Your task to perform on an android device: Clear the shopping cart on ebay.com. Search for "duracell triple a" on ebay.com, select the first entry, add it to the cart, then select checkout. Image 0: 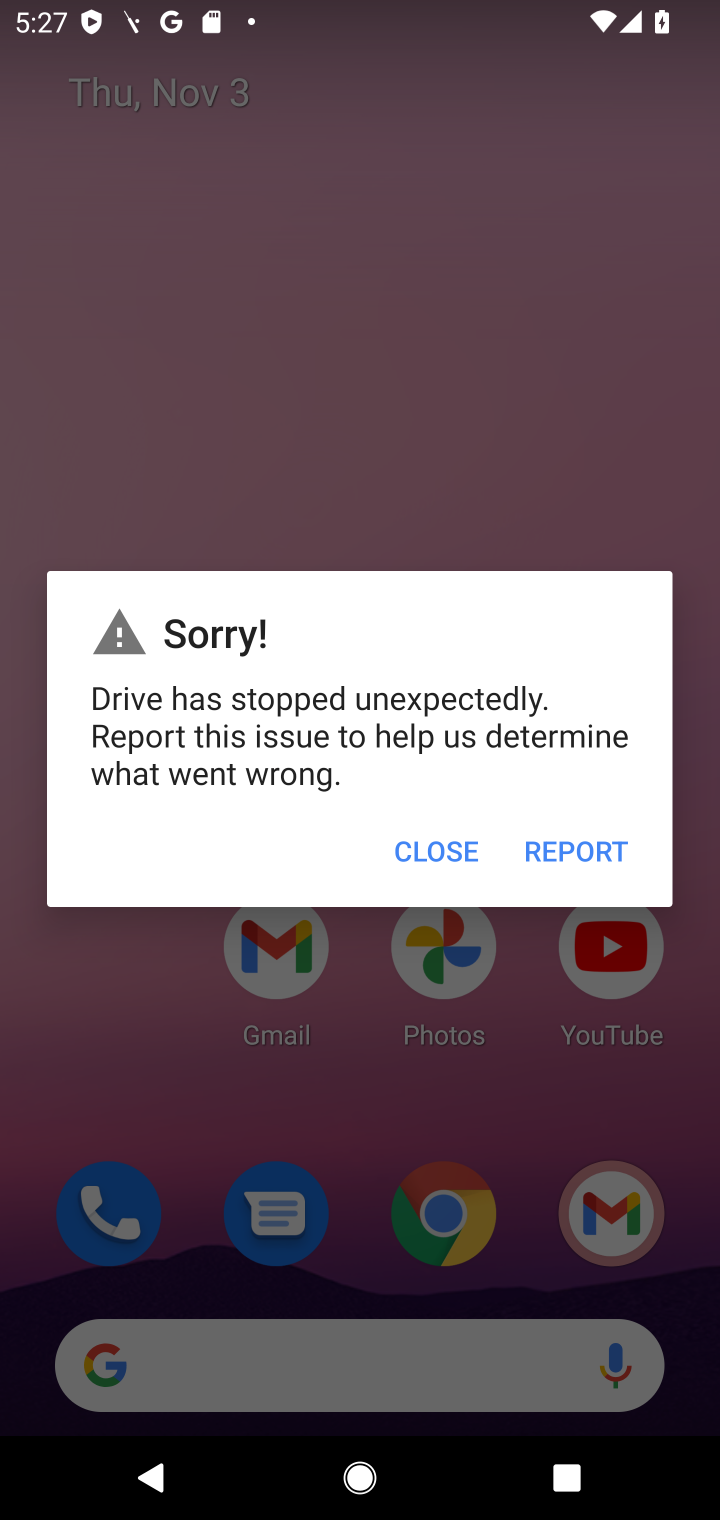
Step 0: press home button
Your task to perform on an android device: Clear the shopping cart on ebay.com. Search for "duracell triple a" on ebay.com, select the first entry, add it to the cart, then select checkout. Image 1: 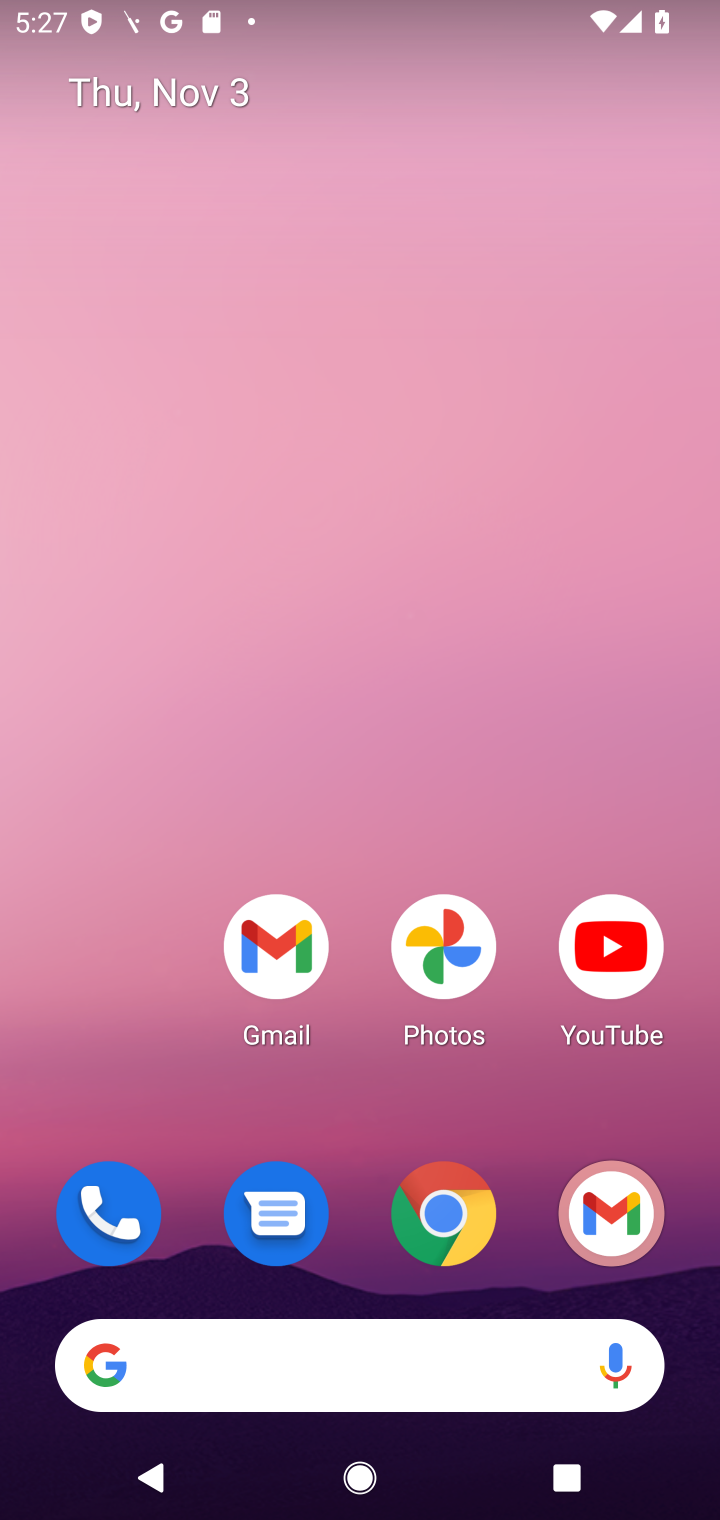
Step 1: click (452, 1214)
Your task to perform on an android device: Clear the shopping cart on ebay.com. Search for "duracell triple a" on ebay.com, select the first entry, add it to the cart, then select checkout. Image 2: 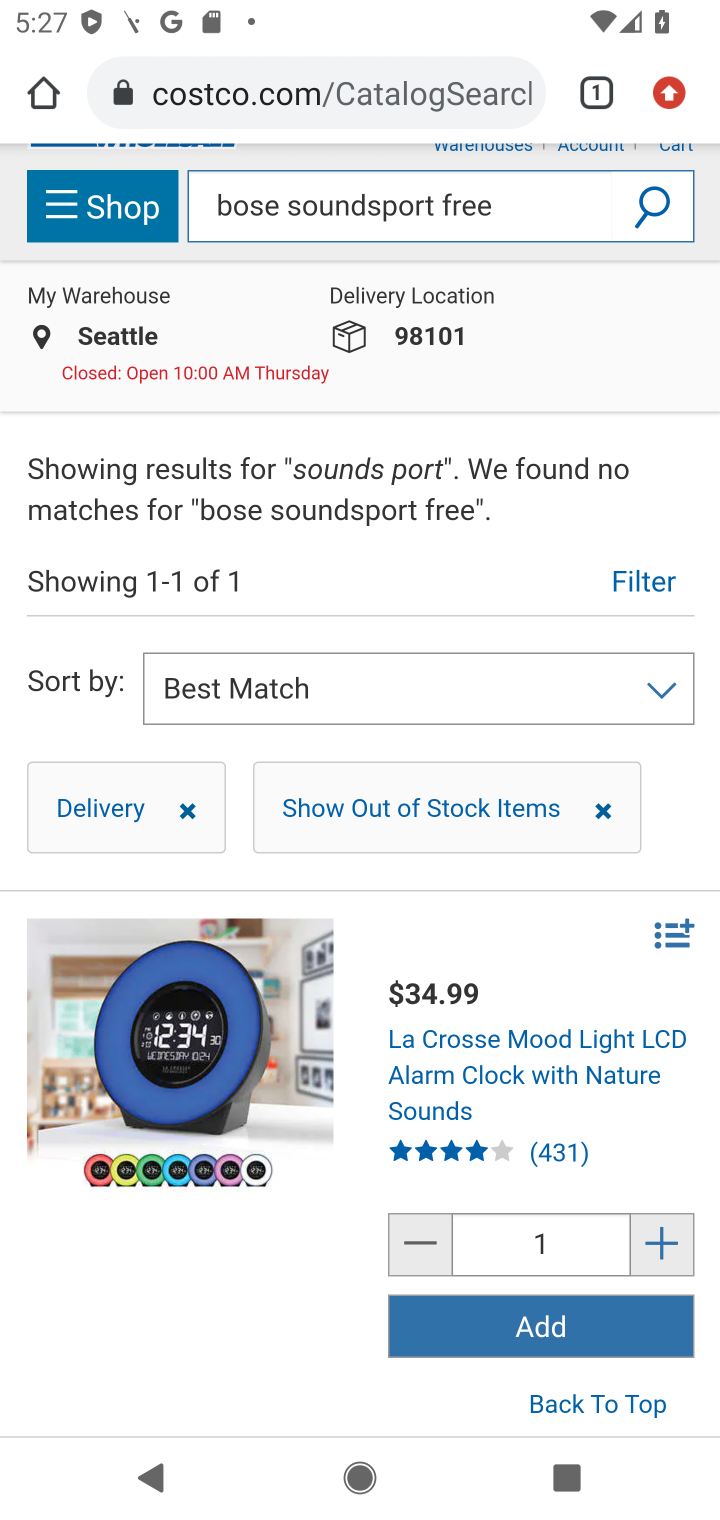
Step 2: click (360, 76)
Your task to perform on an android device: Clear the shopping cart on ebay.com. Search for "duracell triple a" on ebay.com, select the first entry, add it to the cart, then select checkout. Image 3: 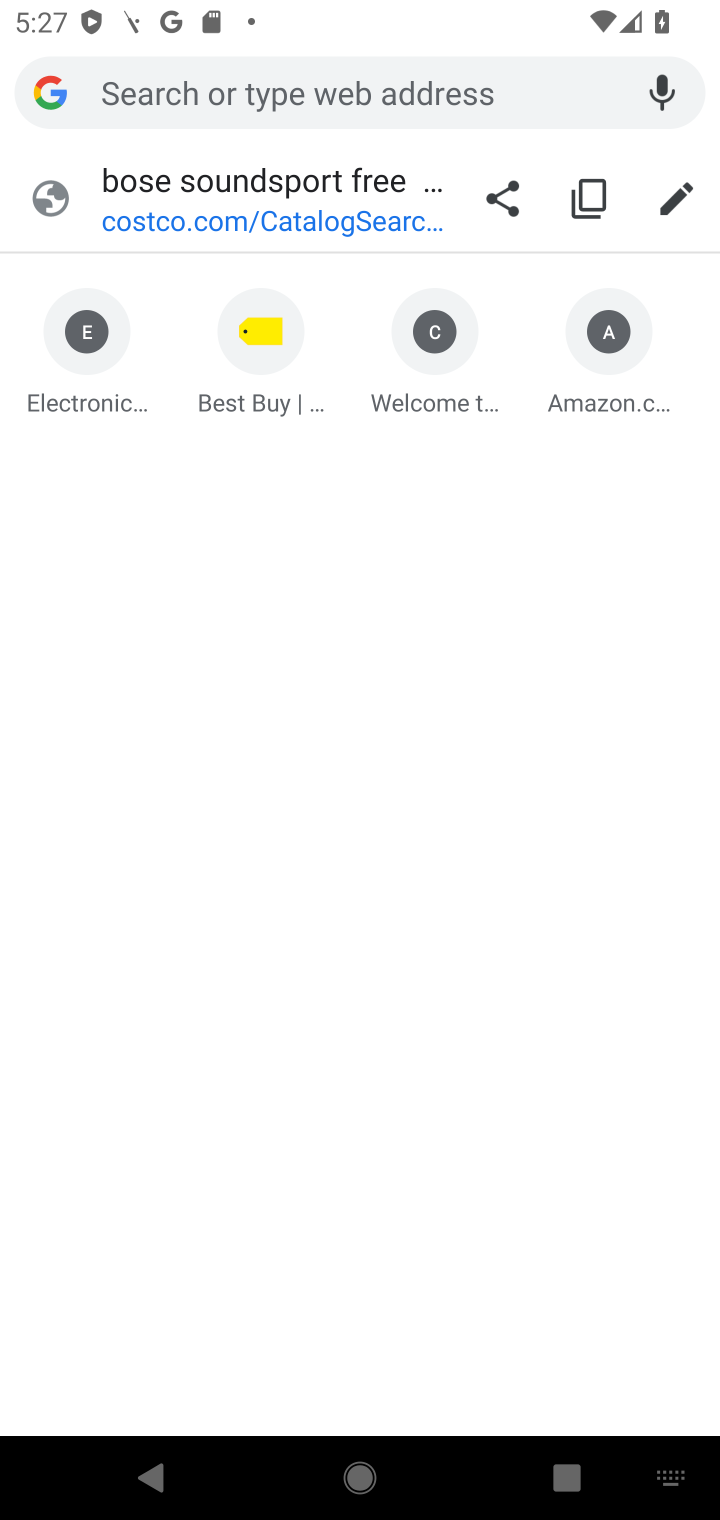
Step 3: type "ebay.com"
Your task to perform on an android device: Clear the shopping cart on ebay.com. Search for "duracell triple a" on ebay.com, select the first entry, add it to the cart, then select checkout. Image 4: 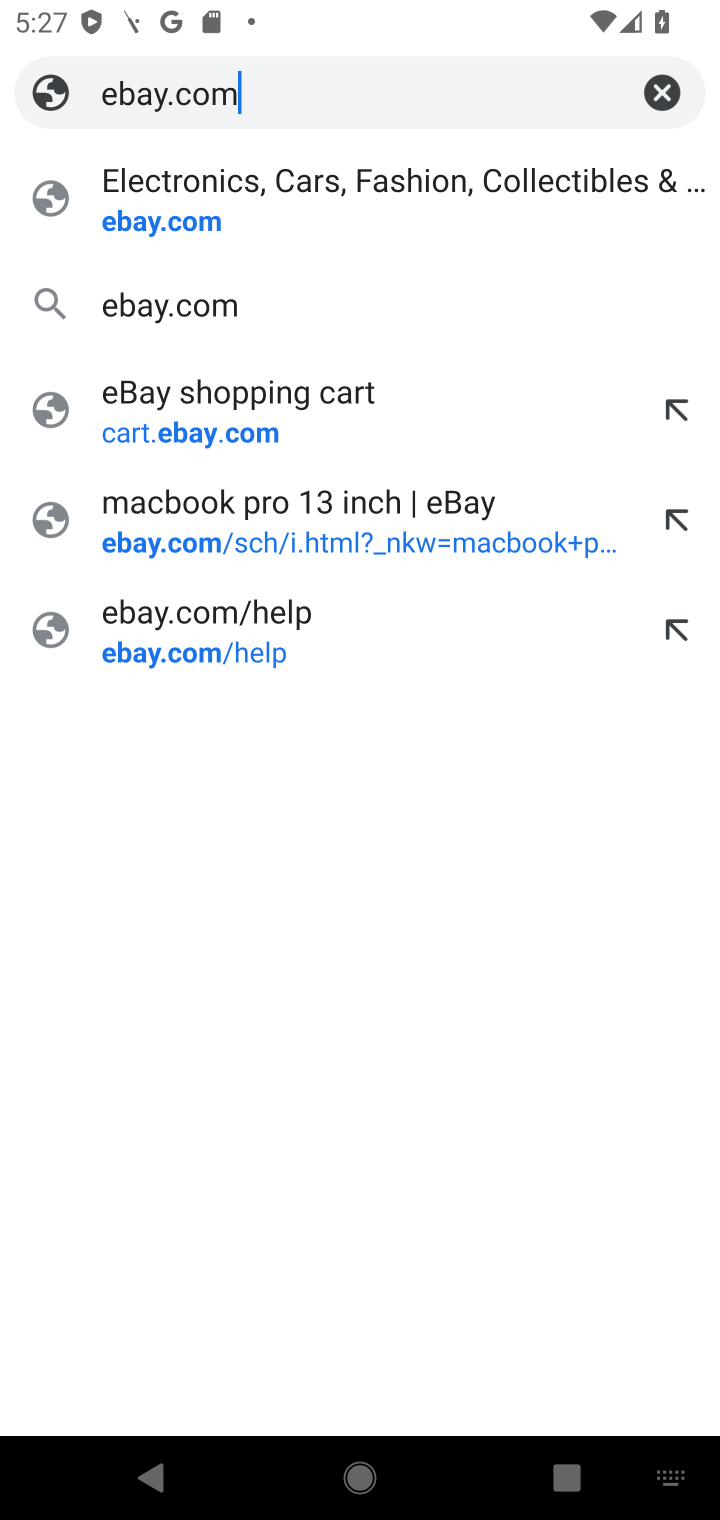
Step 4: click (162, 226)
Your task to perform on an android device: Clear the shopping cart on ebay.com. Search for "duracell triple a" on ebay.com, select the first entry, add it to the cart, then select checkout. Image 5: 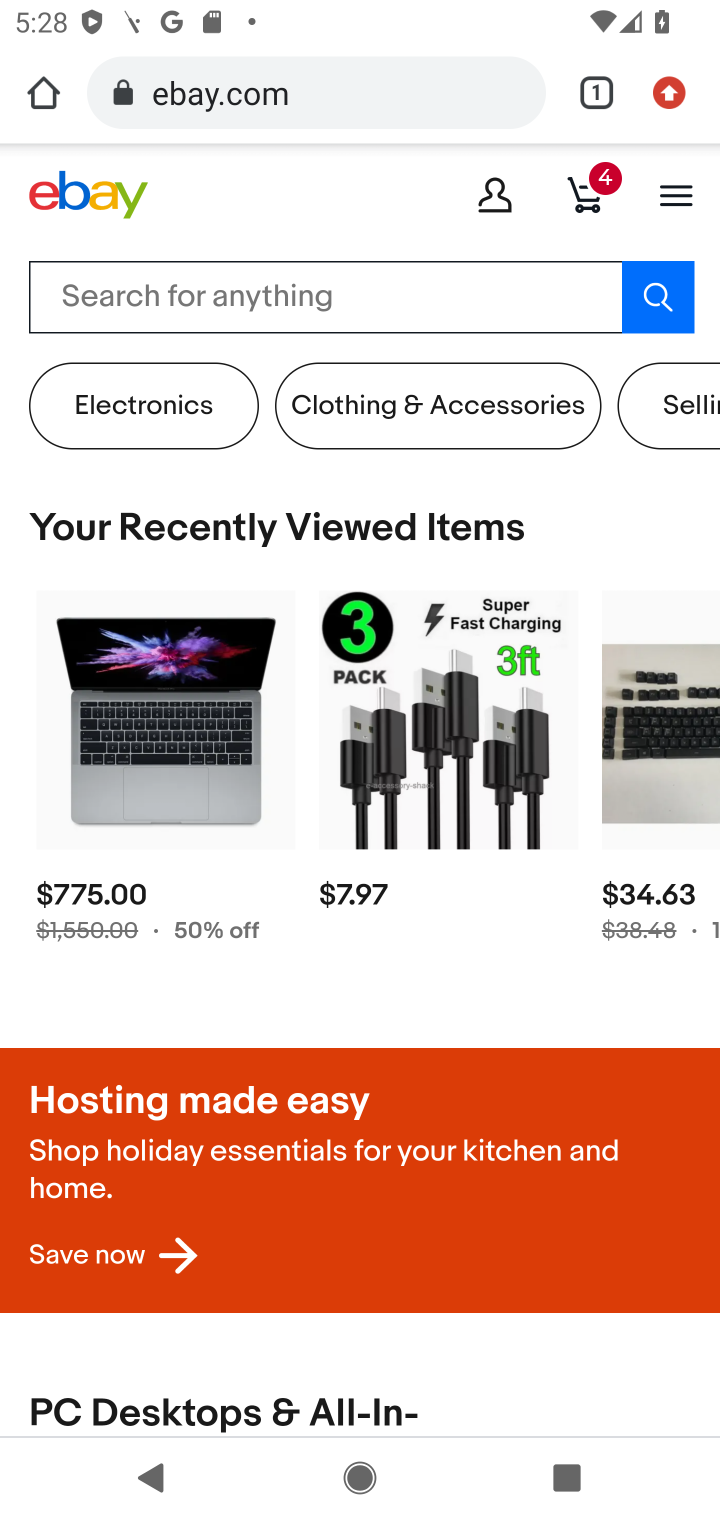
Step 5: click (593, 184)
Your task to perform on an android device: Clear the shopping cart on ebay.com. Search for "duracell triple a" on ebay.com, select the first entry, add it to the cart, then select checkout. Image 6: 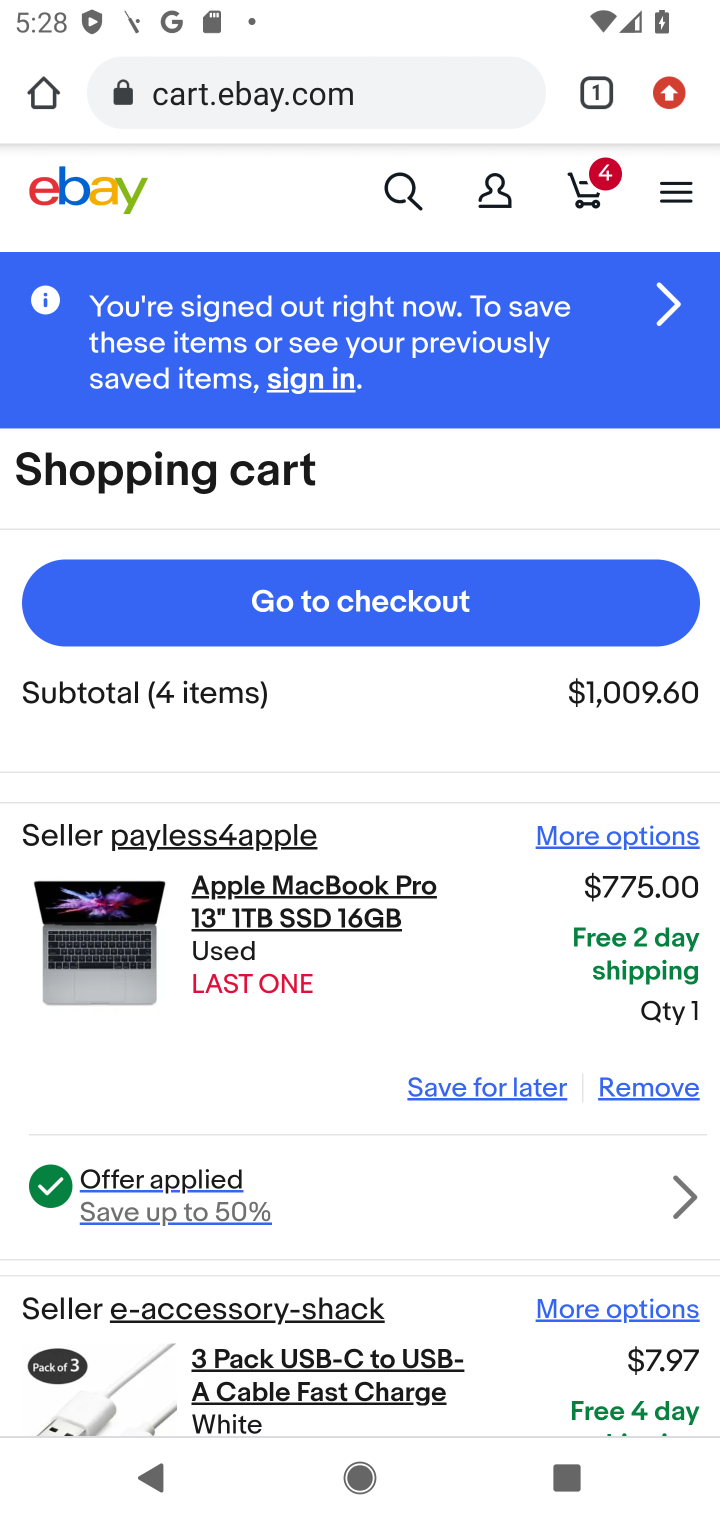
Step 6: click (630, 1092)
Your task to perform on an android device: Clear the shopping cart on ebay.com. Search for "duracell triple a" on ebay.com, select the first entry, add it to the cart, then select checkout. Image 7: 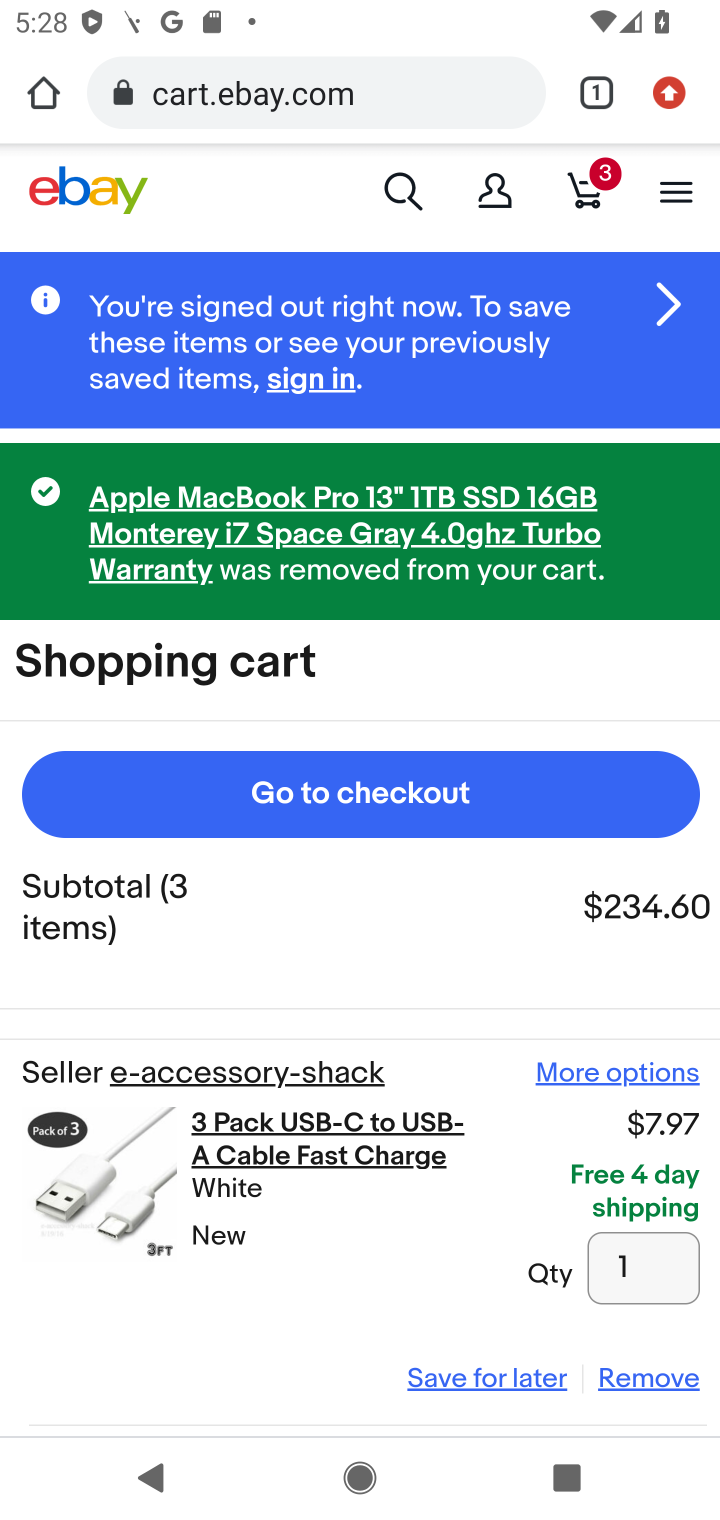
Step 7: click (632, 1373)
Your task to perform on an android device: Clear the shopping cart on ebay.com. Search for "duracell triple a" on ebay.com, select the first entry, add it to the cart, then select checkout. Image 8: 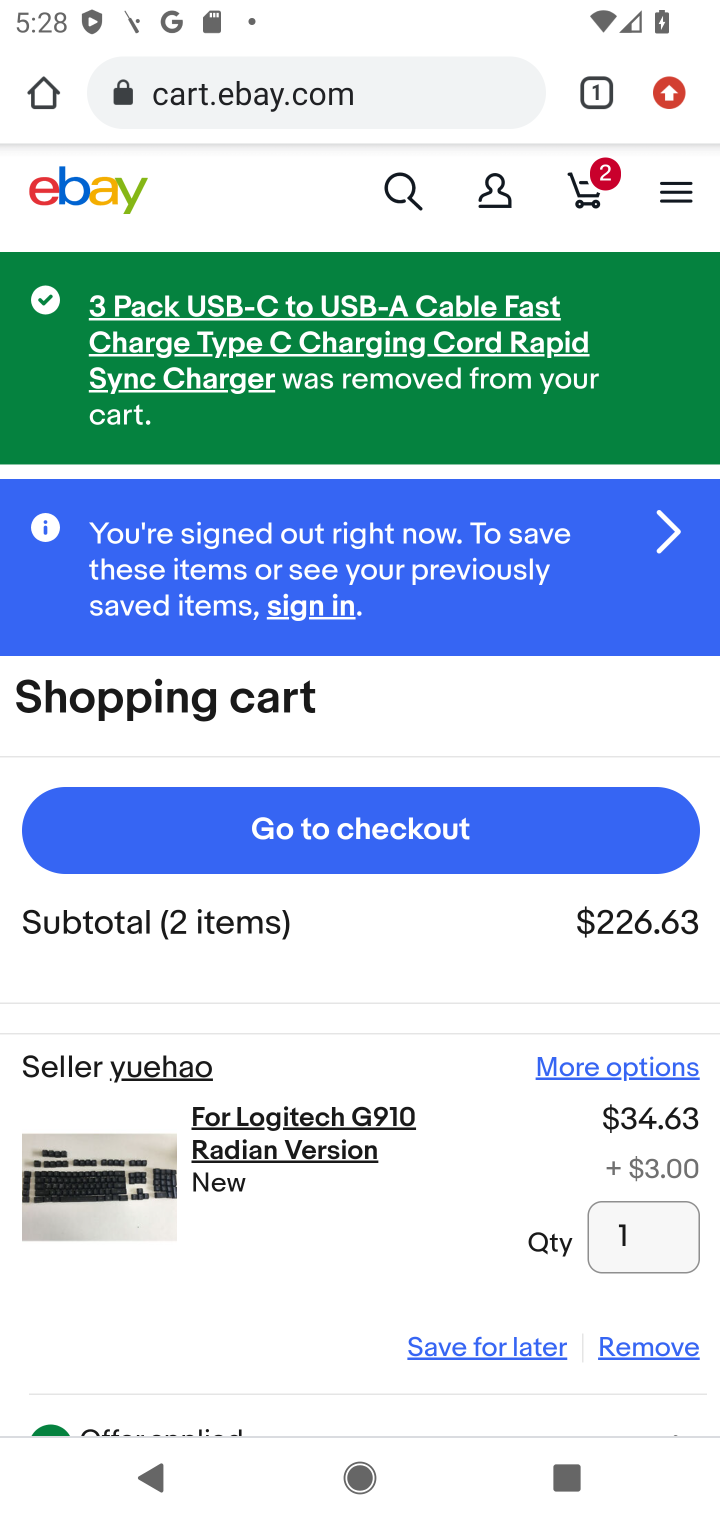
Step 8: click (639, 1355)
Your task to perform on an android device: Clear the shopping cart on ebay.com. Search for "duracell triple a" on ebay.com, select the first entry, add it to the cart, then select checkout. Image 9: 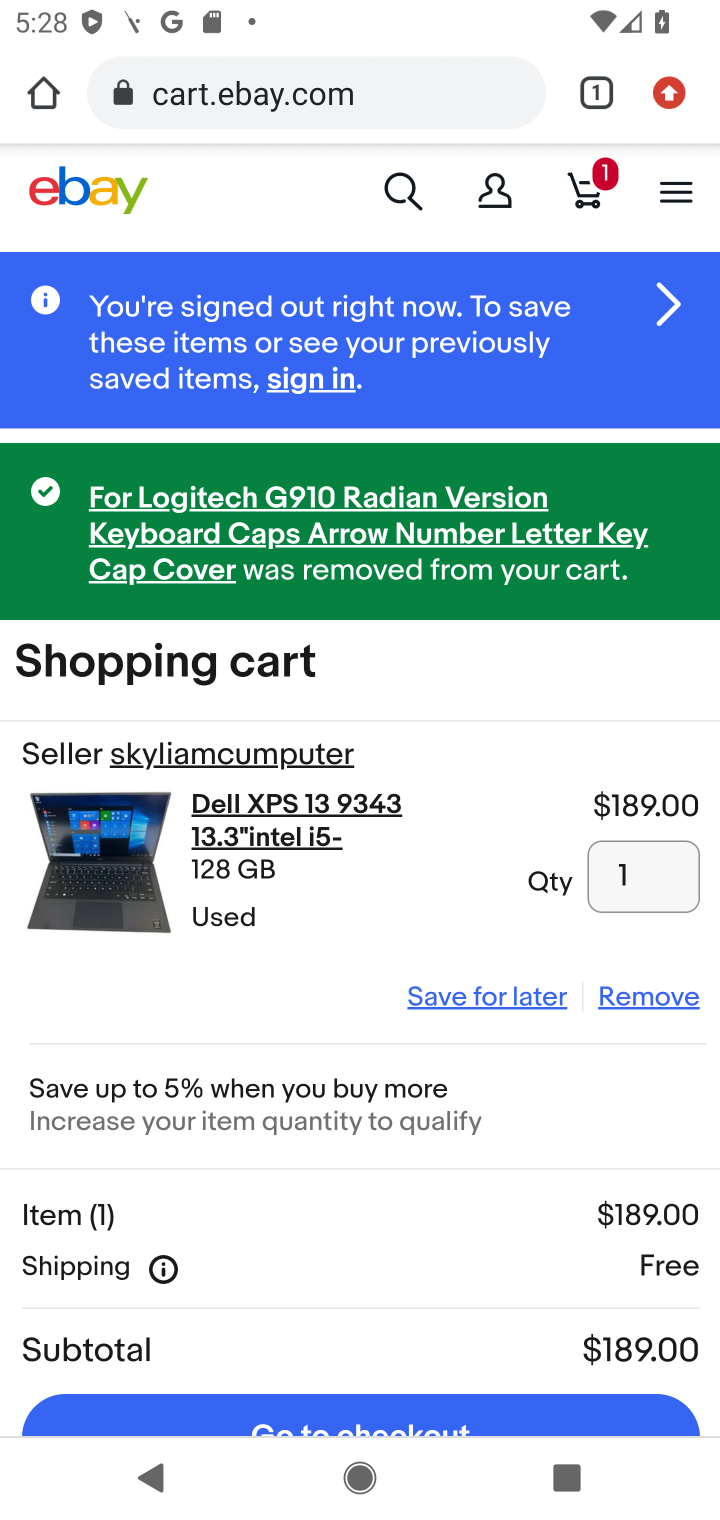
Step 9: click (613, 999)
Your task to perform on an android device: Clear the shopping cart on ebay.com. Search for "duracell triple a" on ebay.com, select the first entry, add it to the cart, then select checkout. Image 10: 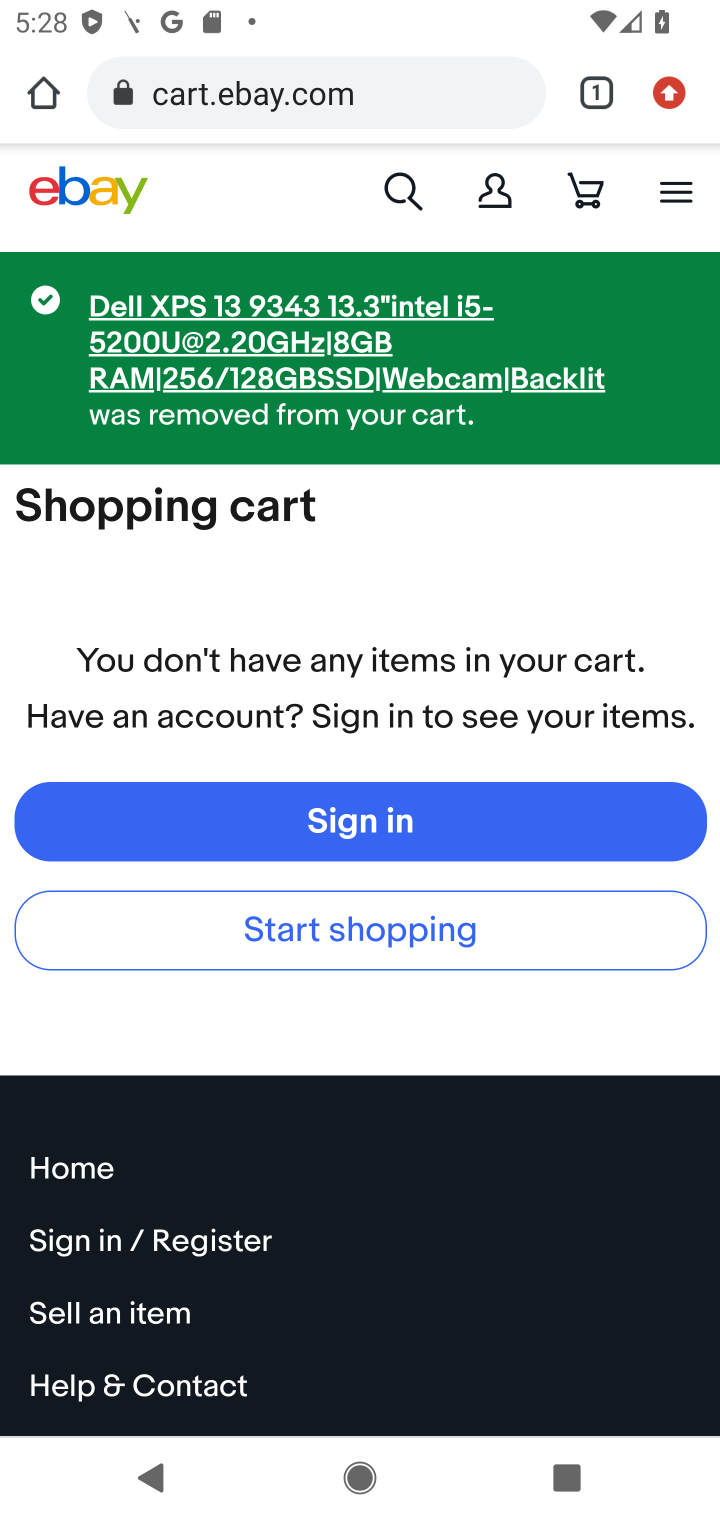
Step 10: click (402, 198)
Your task to perform on an android device: Clear the shopping cart on ebay.com. Search for "duracell triple a" on ebay.com, select the first entry, add it to the cart, then select checkout. Image 11: 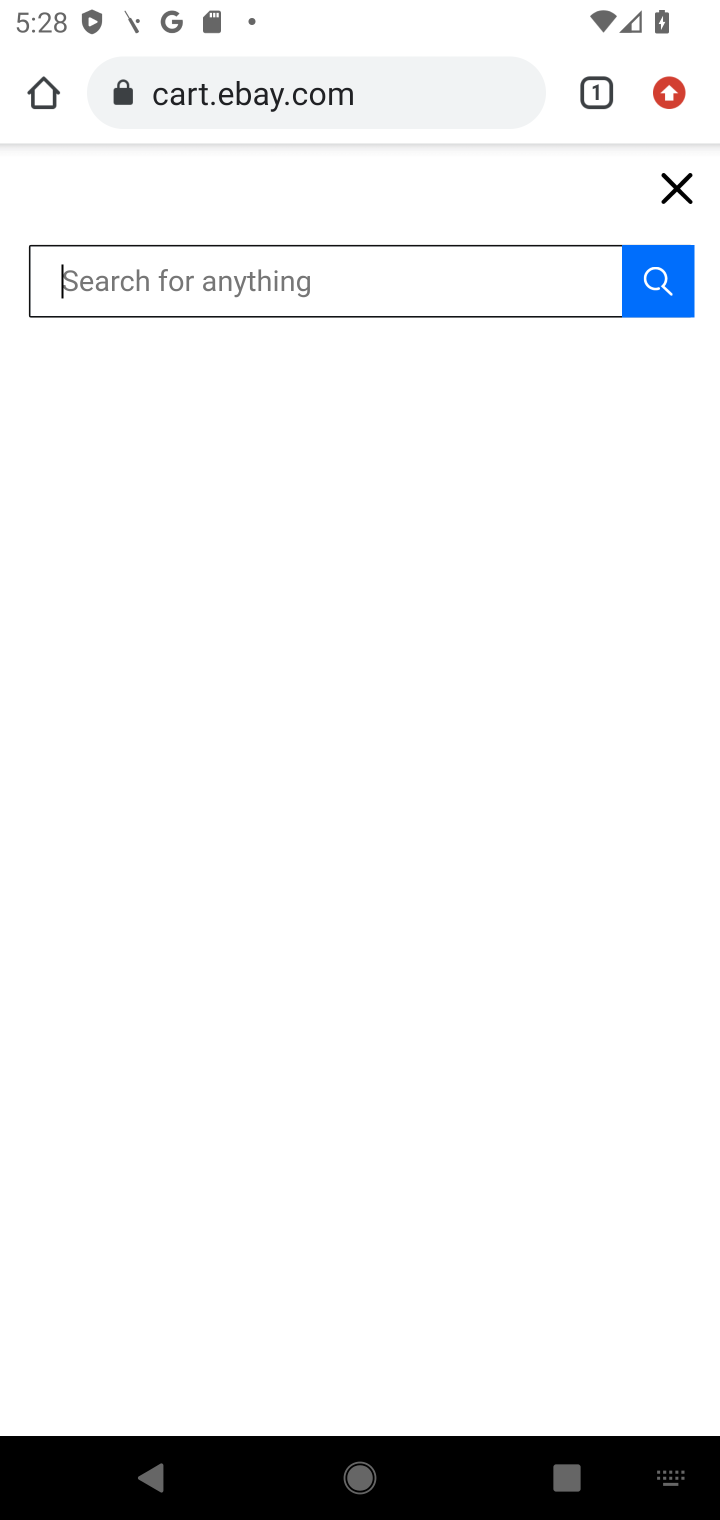
Step 11: type "duracell triple a"
Your task to perform on an android device: Clear the shopping cart on ebay.com. Search for "duracell triple a" on ebay.com, select the first entry, add it to the cart, then select checkout. Image 12: 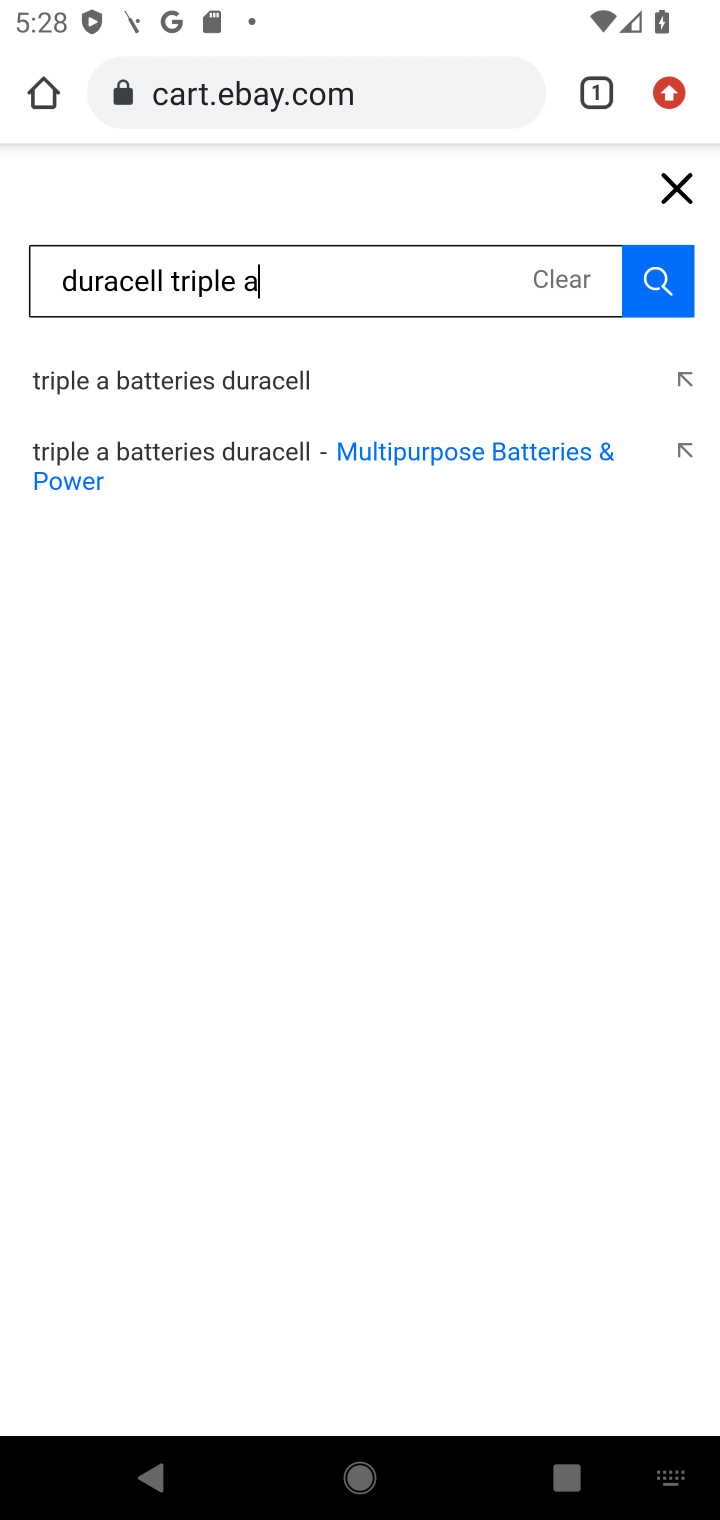
Step 12: click (652, 290)
Your task to perform on an android device: Clear the shopping cart on ebay.com. Search for "duracell triple a" on ebay.com, select the first entry, add it to the cart, then select checkout. Image 13: 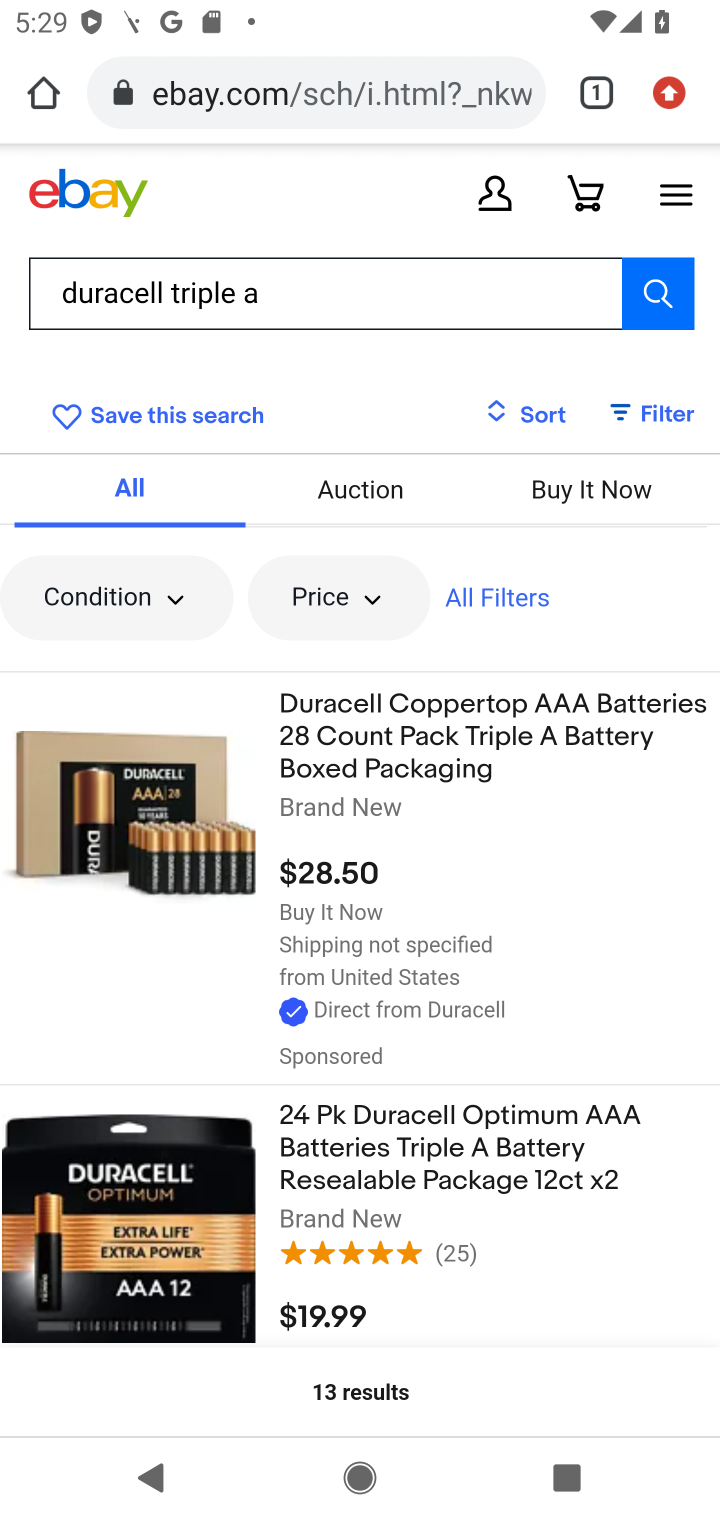
Step 13: click (193, 824)
Your task to perform on an android device: Clear the shopping cart on ebay.com. Search for "duracell triple a" on ebay.com, select the first entry, add it to the cart, then select checkout. Image 14: 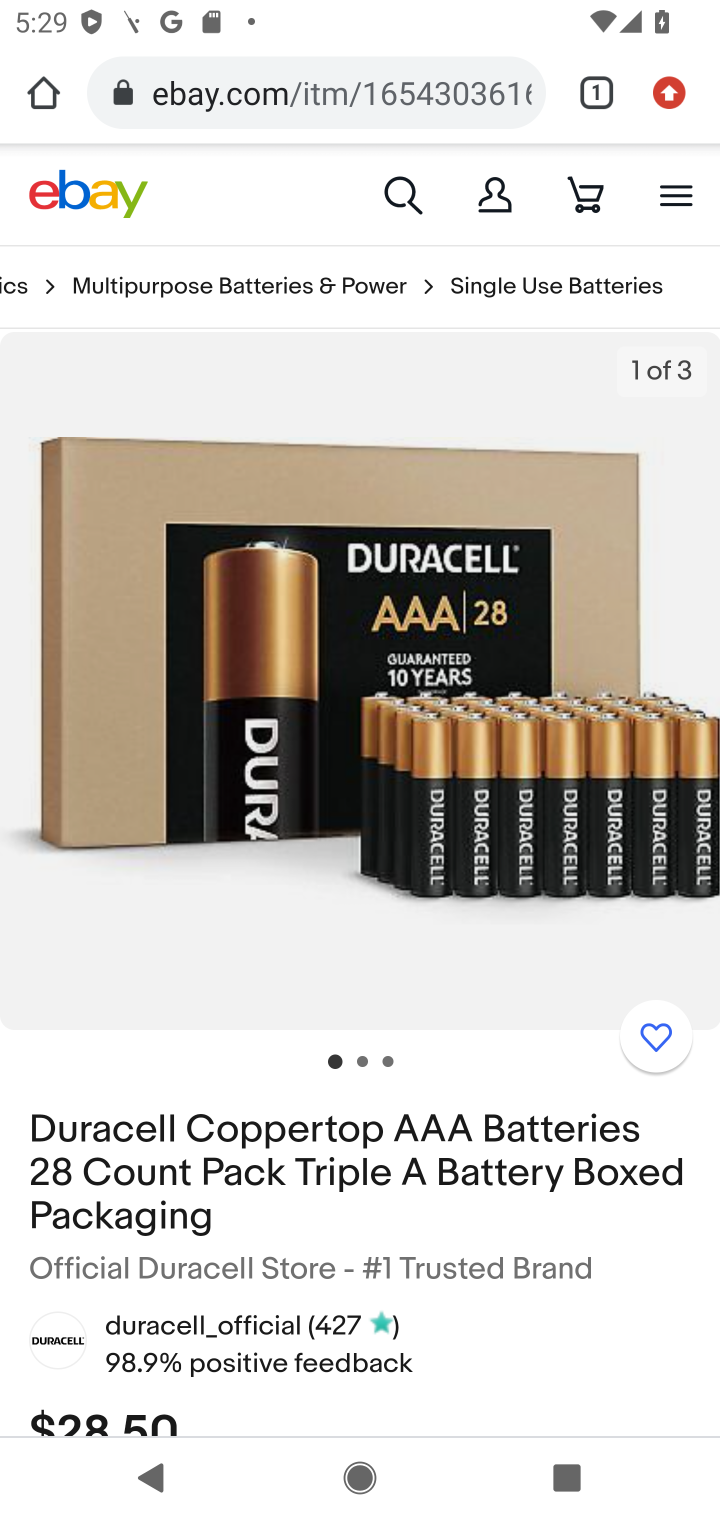
Step 14: drag from (313, 1148) to (333, 435)
Your task to perform on an android device: Clear the shopping cart on ebay.com. Search for "duracell triple a" on ebay.com, select the first entry, add it to the cart, then select checkout. Image 15: 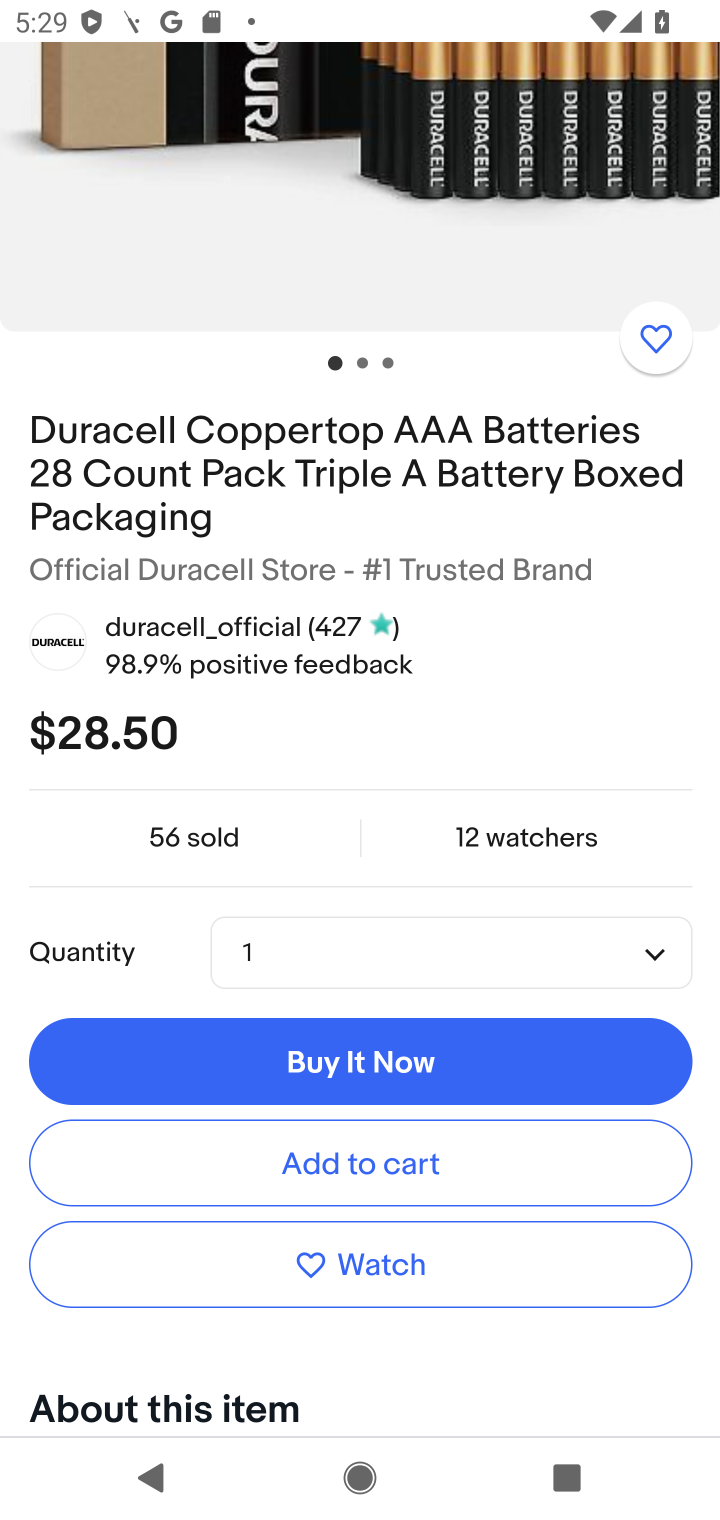
Step 15: click (333, 1172)
Your task to perform on an android device: Clear the shopping cart on ebay.com. Search for "duracell triple a" on ebay.com, select the first entry, add it to the cart, then select checkout. Image 16: 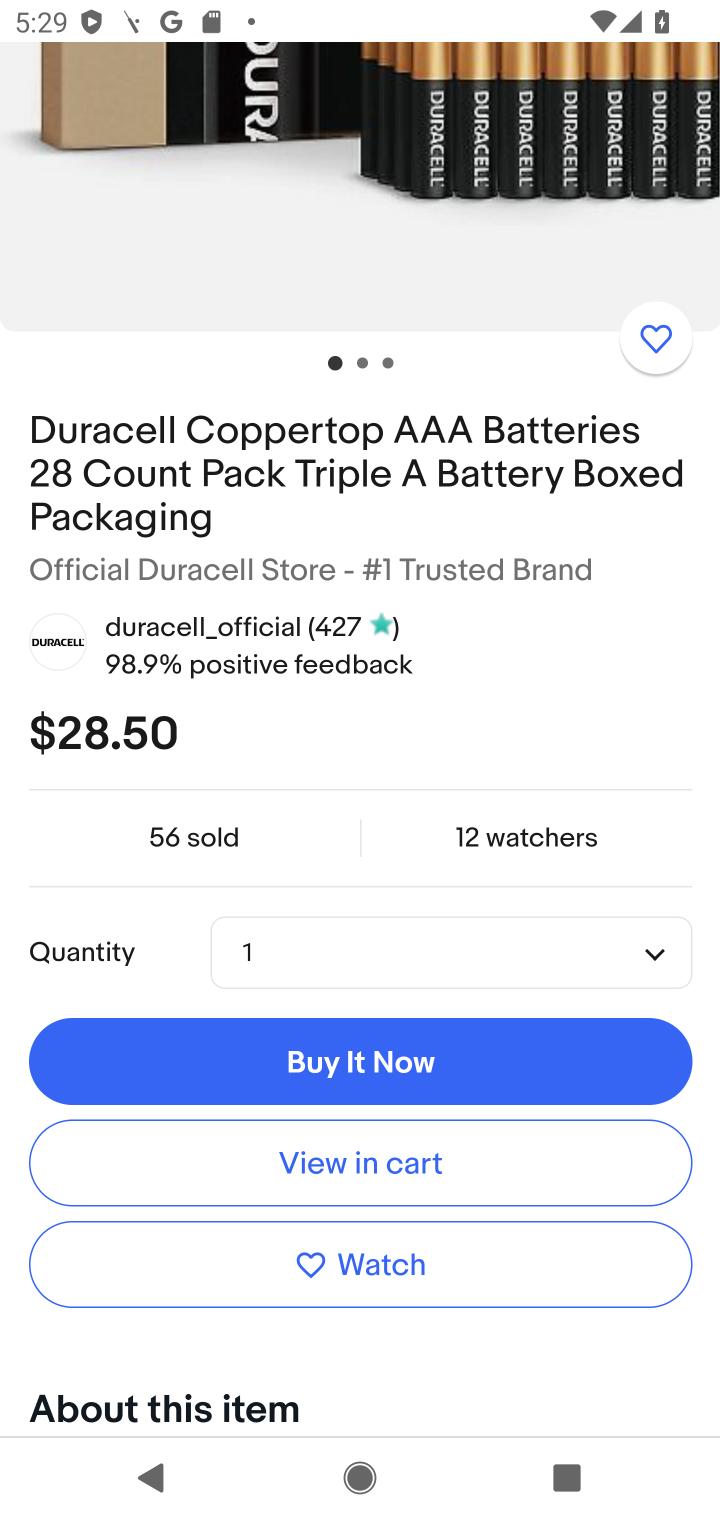
Step 16: click (333, 1172)
Your task to perform on an android device: Clear the shopping cart on ebay.com. Search for "duracell triple a" on ebay.com, select the first entry, add it to the cart, then select checkout. Image 17: 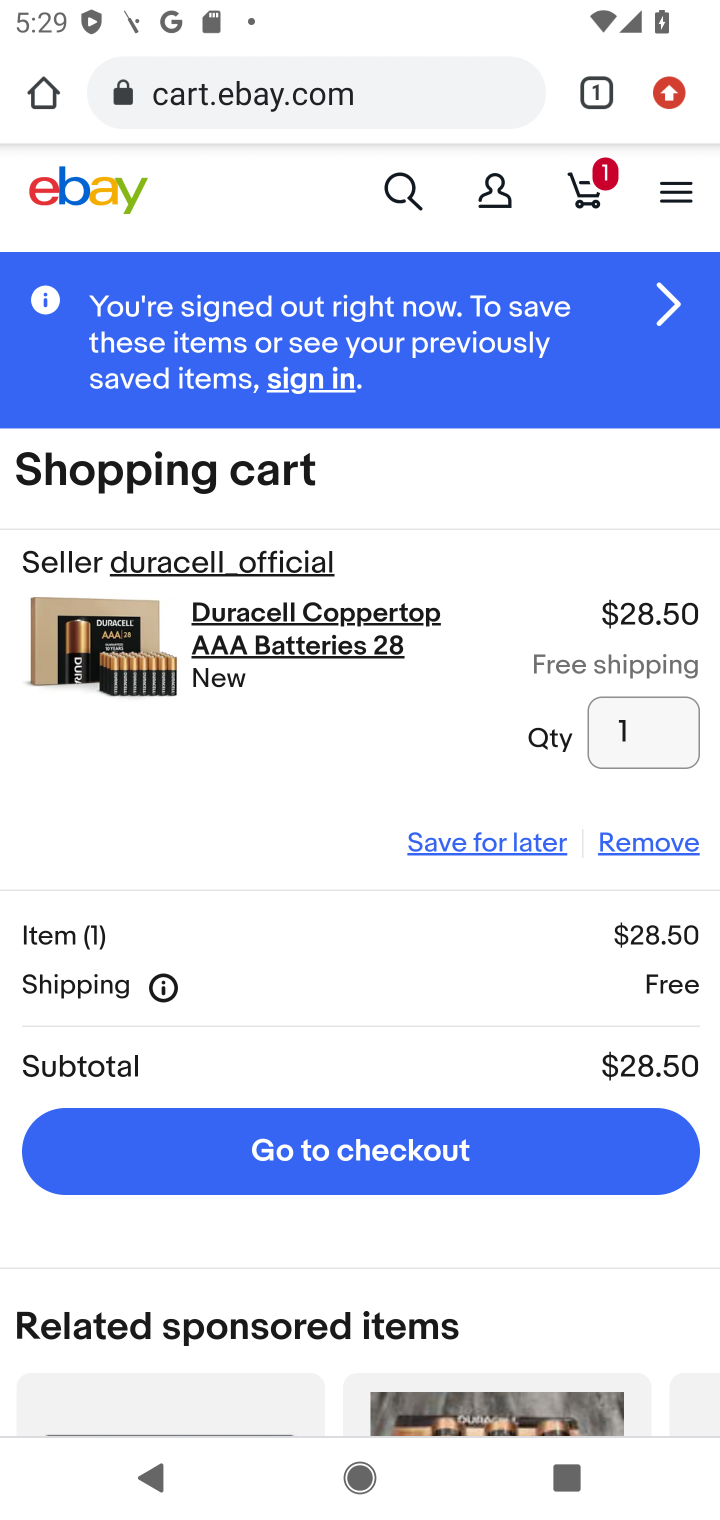
Step 17: click (333, 1170)
Your task to perform on an android device: Clear the shopping cart on ebay.com. Search for "duracell triple a" on ebay.com, select the first entry, add it to the cart, then select checkout. Image 18: 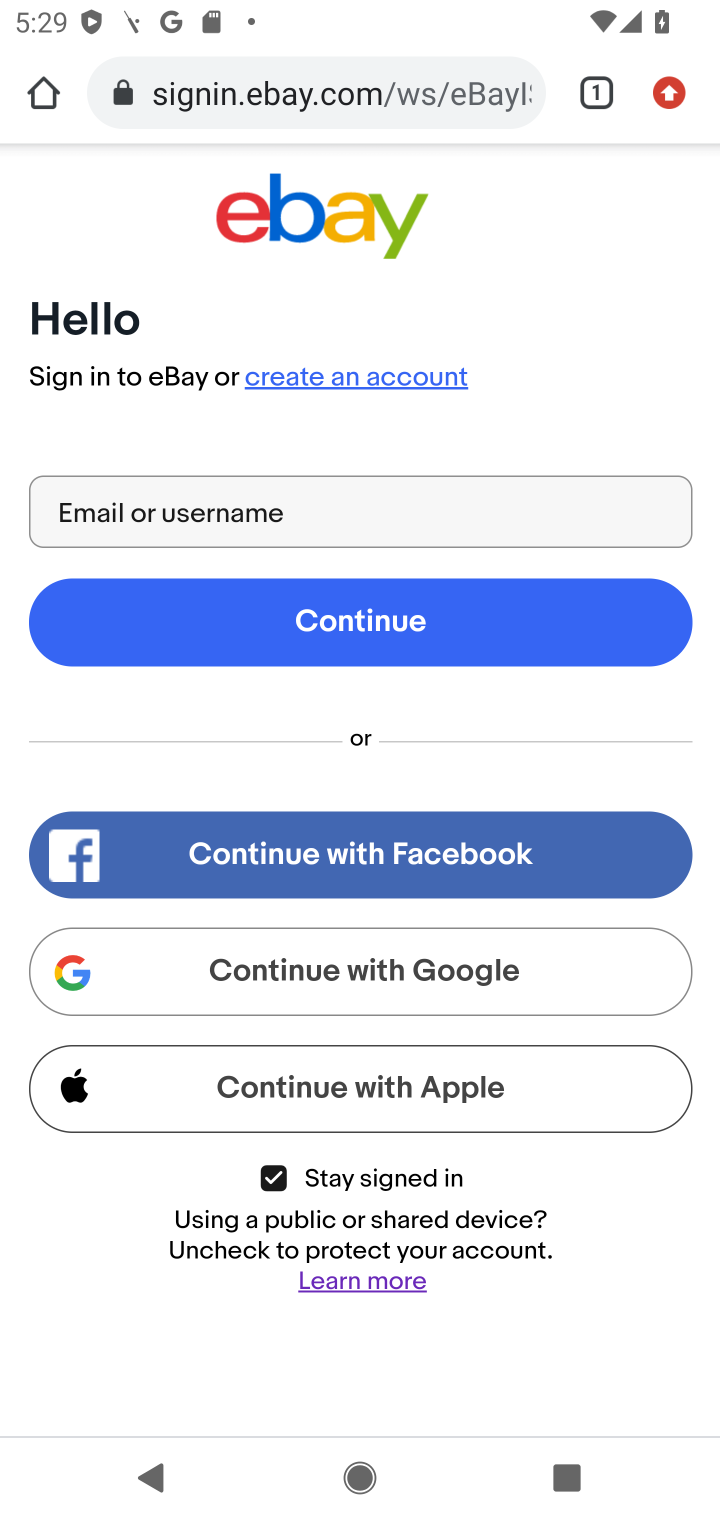
Step 18: task complete